Your task to perform on an android device: Go to Yahoo.com Image 0: 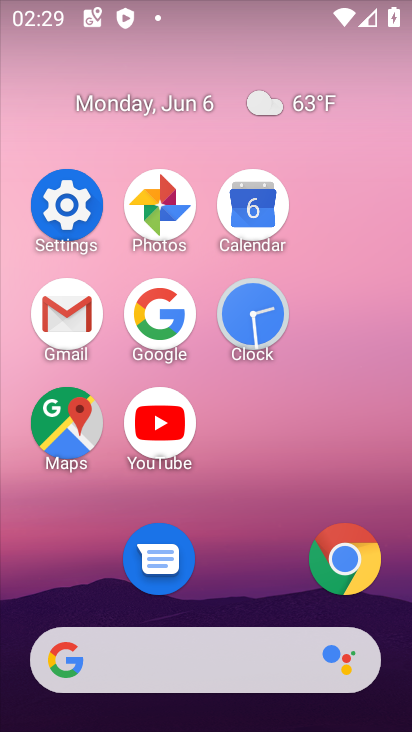
Step 0: click (355, 557)
Your task to perform on an android device: Go to Yahoo.com Image 1: 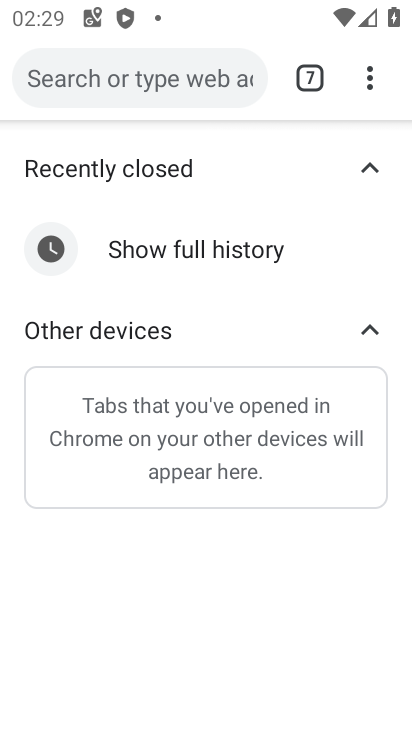
Step 1: click (309, 72)
Your task to perform on an android device: Go to Yahoo.com Image 2: 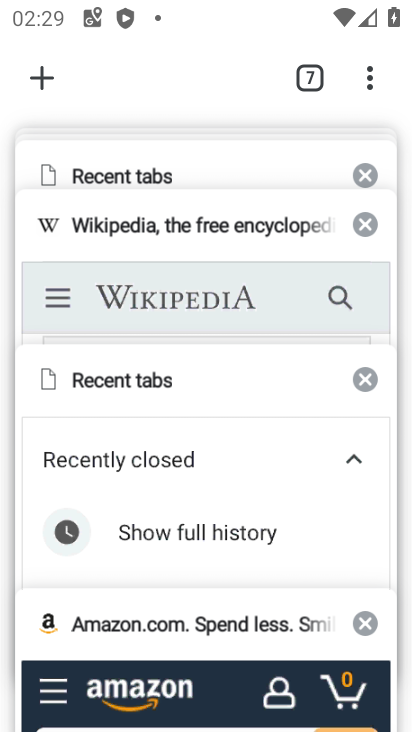
Step 2: drag from (215, 247) to (181, 546)
Your task to perform on an android device: Go to Yahoo.com Image 3: 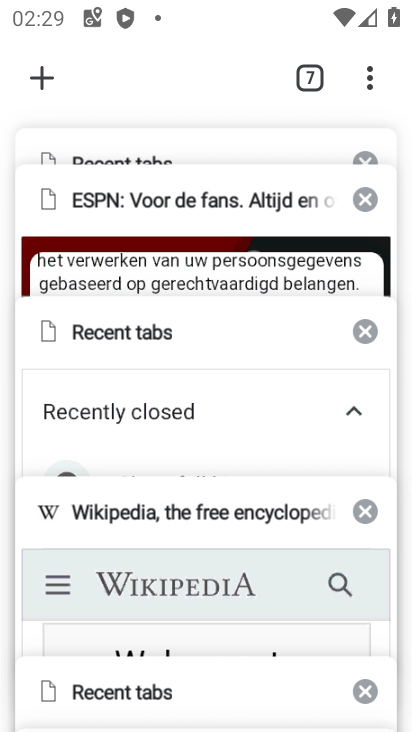
Step 3: drag from (233, 196) to (139, 630)
Your task to perform on an android device: Go to Yahoo.com Image 4: 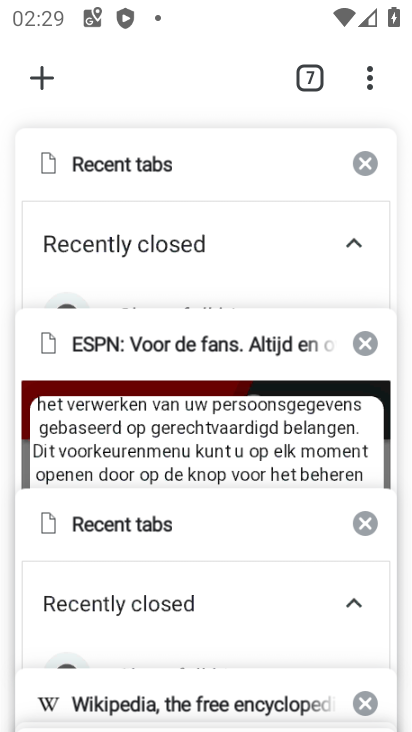
Step 4: drag from (192, 362) to (216, 2)
Your task to perform on an android device: Go to Yahoo.com Image 5: 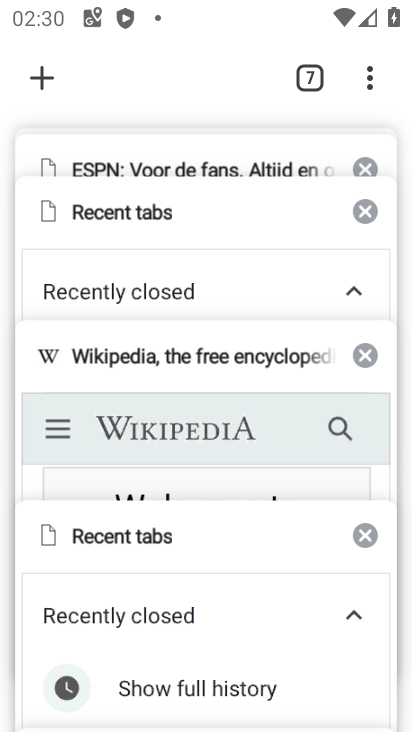
Step 5: drag from (107, 612) to (186, 173)
Your task to perform on an android device: Go to Yahoo.com Image 6: 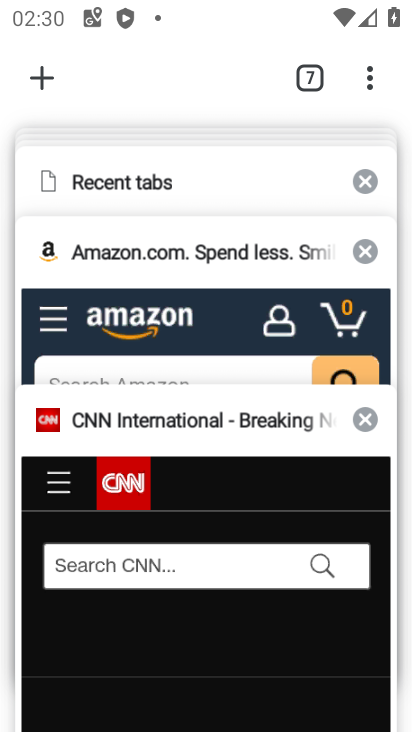
Step 6: drag from (179, 569) to (203, 203)
Your task to perform on an android device: Go to Yahoo.com Image 7: 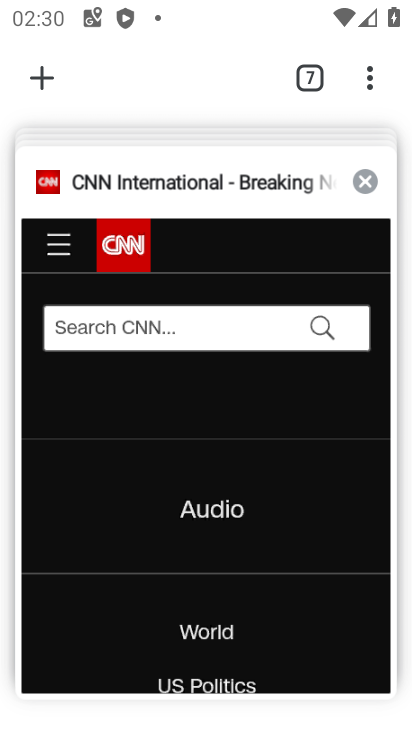
Step 7: click (45, 83)
Your task to perform on an android device: Go to Yahoo.com Image 8: 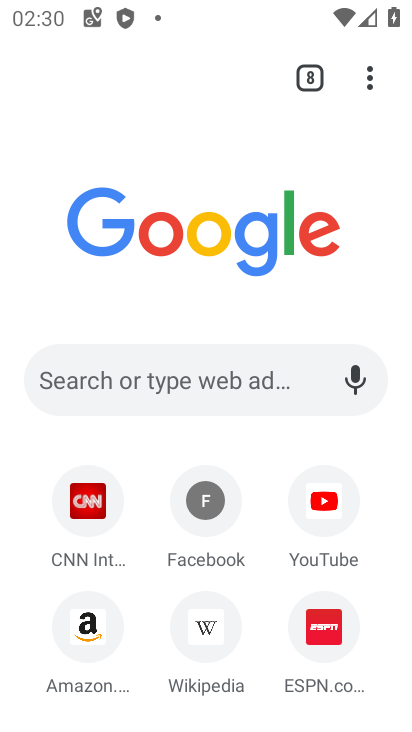
Step 8: click (248, 353)
Your task to perform on an android device: Go to Yahoo.com Image 9: 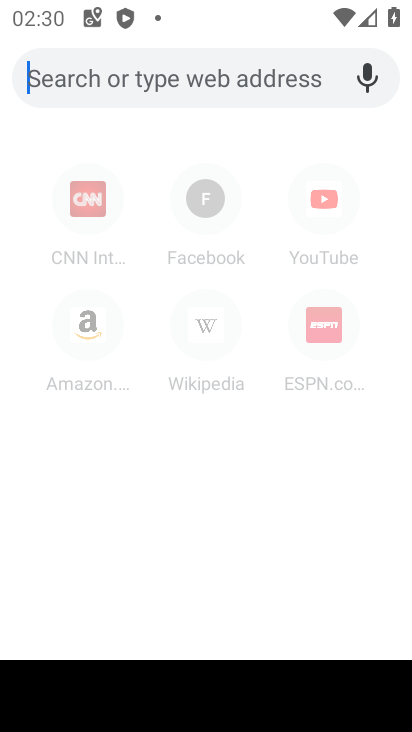
Step 9: type "yahoo"
Your task to perform on an android device: Go to Yahoo.com Image 10: 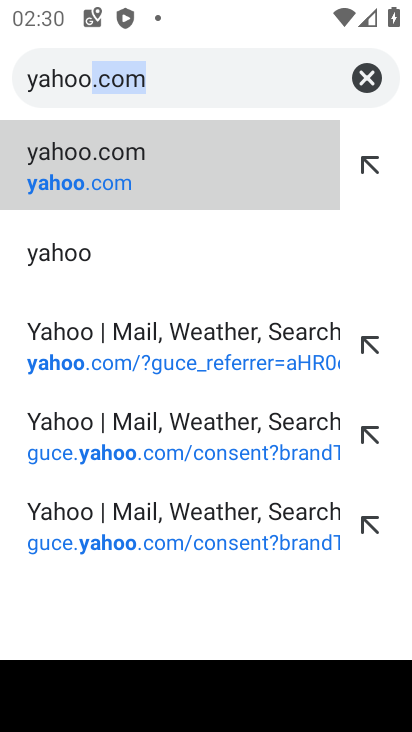
Step 10: click (175, 173)
Your task to perform on an android device: Go to Yahoo.com Image 11: 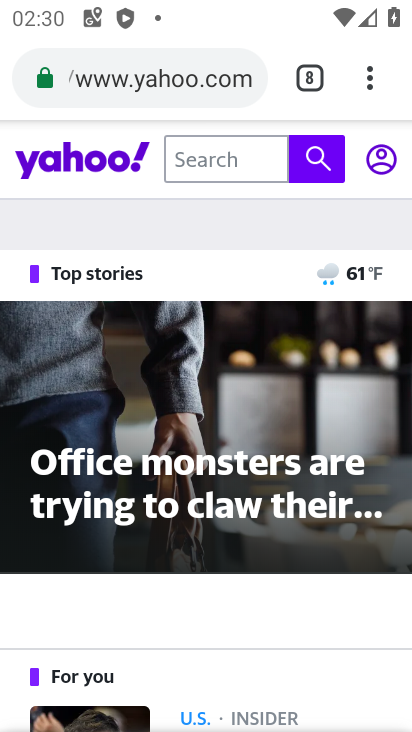
Step 11: task complete